Your task to perform on an android device: turn off priority inbox in the gmail app Image 0: 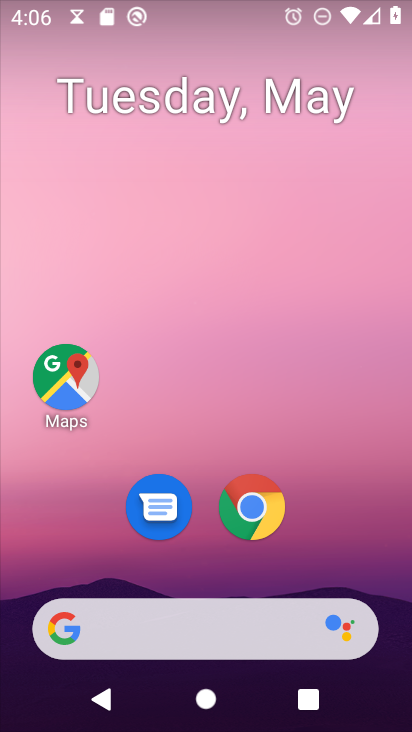
Step 0: drag from (332, 592) to (286, 66)
Your task to perform on an android device: turn off priority inbox in the gmail app Image 1: 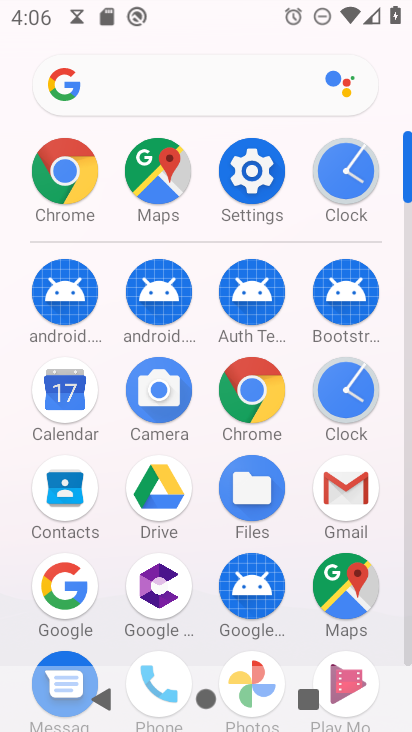
Step 1: click (343, 489)
Your task to perform on an android device: turn off priority inbox in the gmail app Image 2: 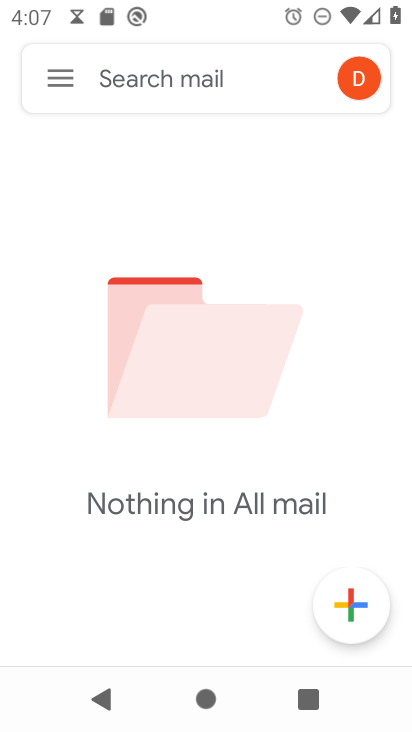
Step 2: click (70, 81)
Your task to perform on an android device: turn off priority inbox in the gmail app Image 3: 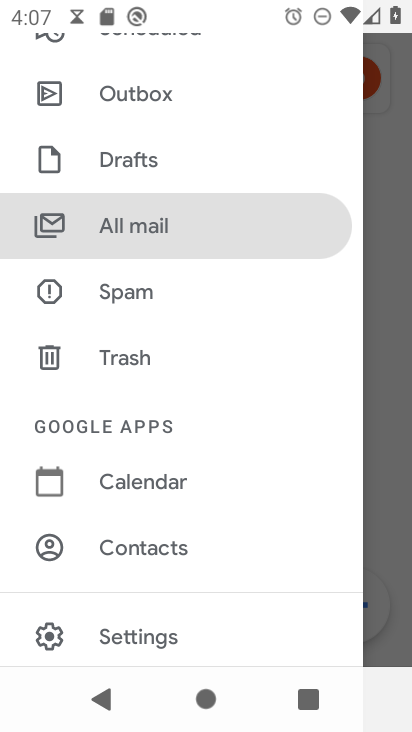
Step 3: click (181, 637)
Your task to perform on an android device: turn off priority inbox in the gmail app Image 4: 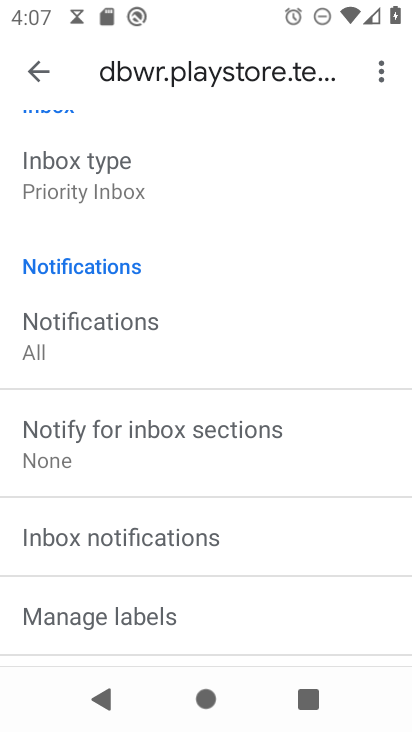
Step 4: click (106, 183)
Your task to perform on an android device: turn off priority inbox in the gmail app Image 5: 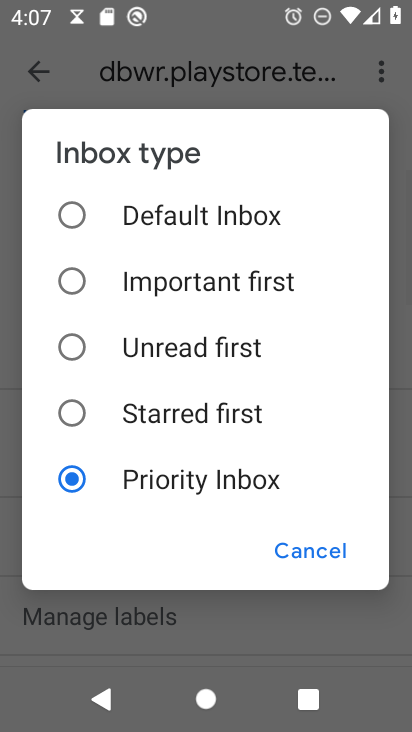
Step 5: click (177, 207)
Your task to perform on an android device: turn off priority inbox in the gmail app Image 6: 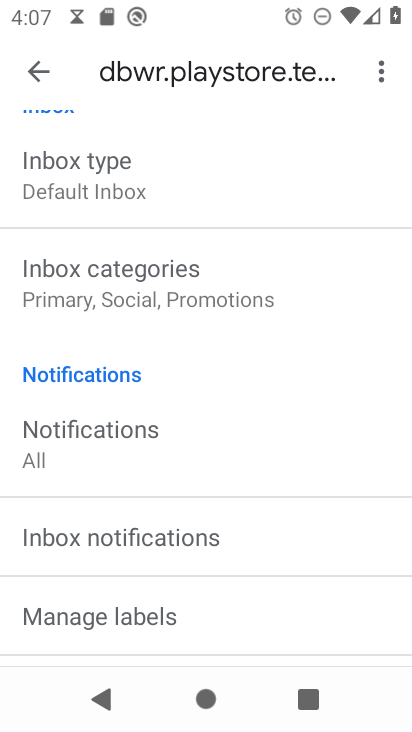
Step 6: task complete